Your task to perform on an android device: Set the phone to "Do not disturb". Image 0: 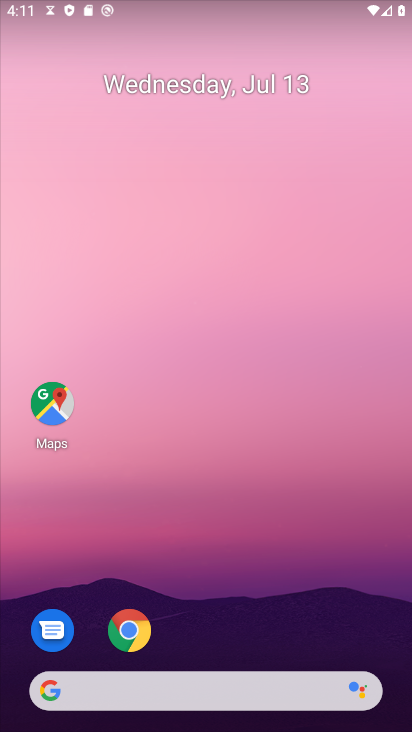
Step 0: press home button
Your task to perform on an android device: Set the phone to "Do not disturb". Image 1: 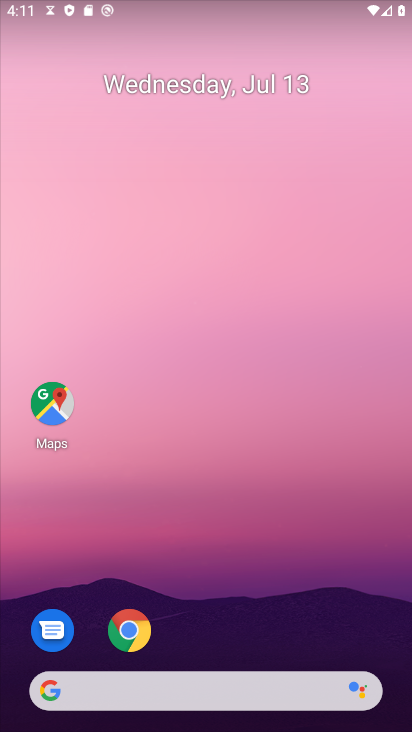
Step 1: drag from (189, 7) to (241, 508)
Your task to perform on an android device: Set the phone to "Do not disturb". Image 2: 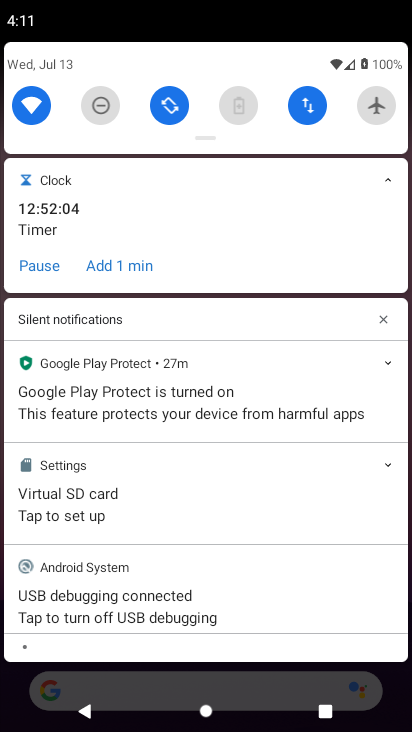
Step 2: click (107, 106)
Your task to perform on an android device: Set the phone to "Do not disturb". Image 3: 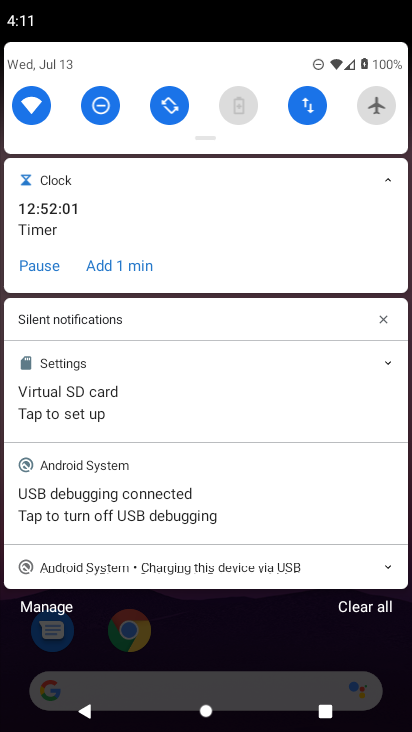
Step 3: task complete